Your task to perform on an android device: set default search engine in the chrome app Image 0: 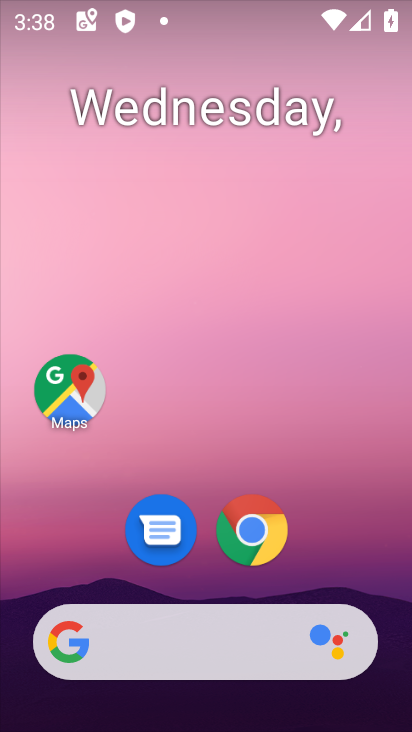
Step 0: drag from (346, 389) to (372, 168)
Your task to perform on an android device: set default search engine in the chrome app Image 1: 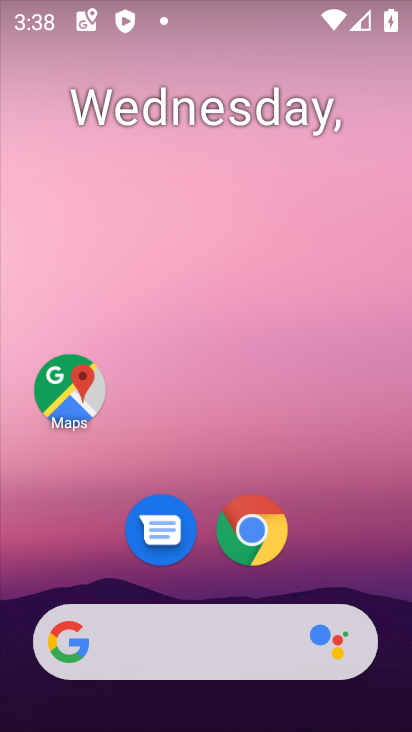
Step 1: drag from (316, 516) to (347, 86)
Your task to perform on an android device: set default search engine in the chrome app Image 2: 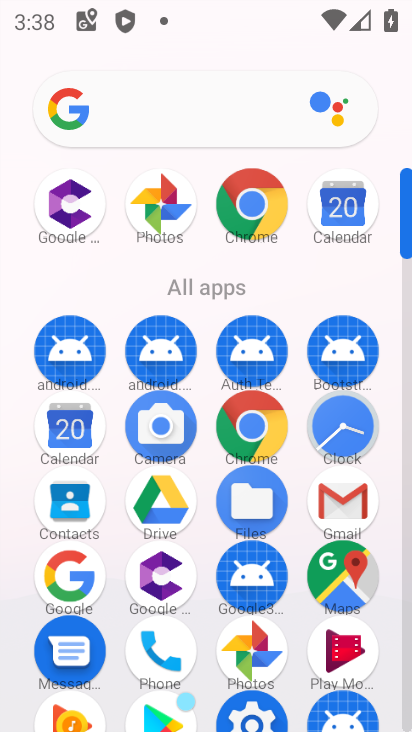
Step 2: click (273, 416)
Your task to perform on an android device: set default search engine in the chrome app Image 3: 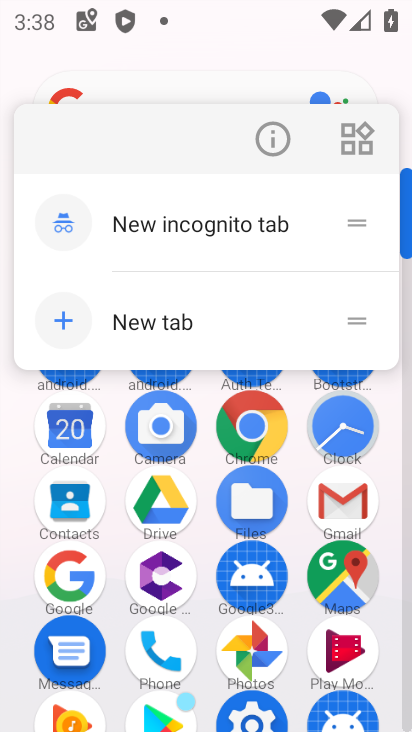
Step 3: click (234, 420)
Your task to perform on an android device: set default search engine in the chrome app Image 4: 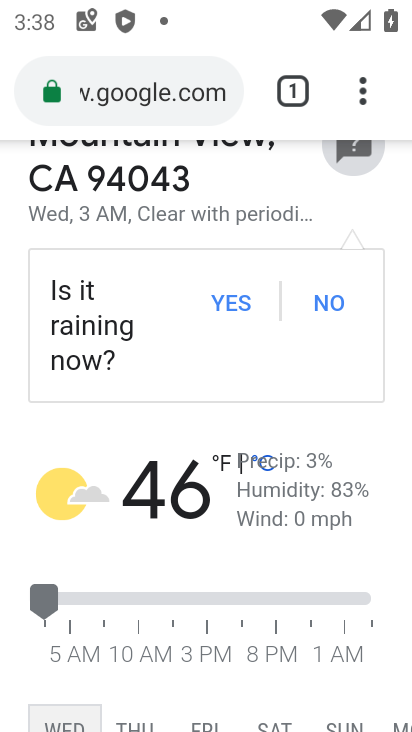
Step 4: drag from (358, 93) to (113, 562)
Your task to perform on an android device: set default search engine in the chrome app Image 5: 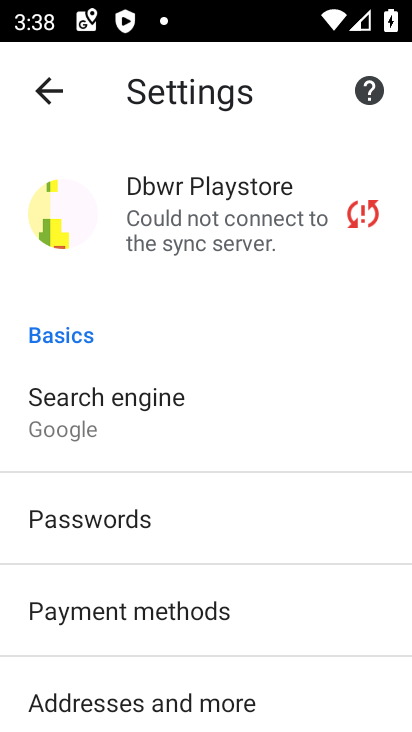
Step 5: click (108, 401)
Your task to perform on an android device: set default search engine in the chrome app Image 6: 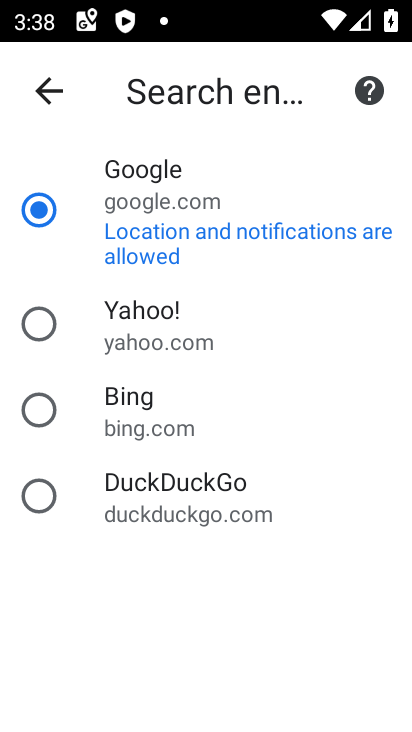
Step 6: task complete